Your task to perform on an android device: Open battery settings Image 0: 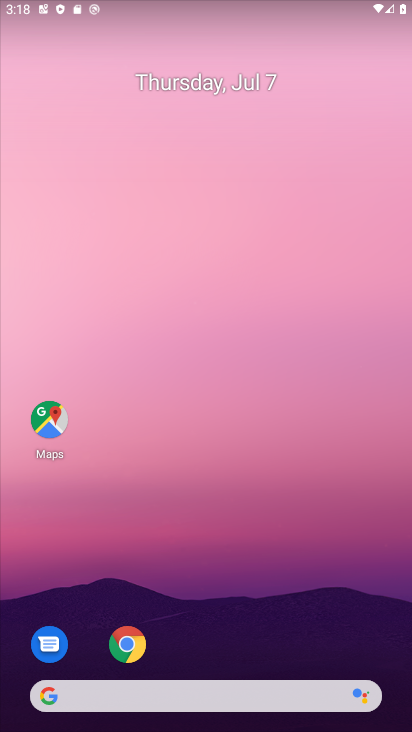
Step 0: drag from (201, 672) to (125, 71)
Your task to perform on an android device: Open battery settings Image 1: 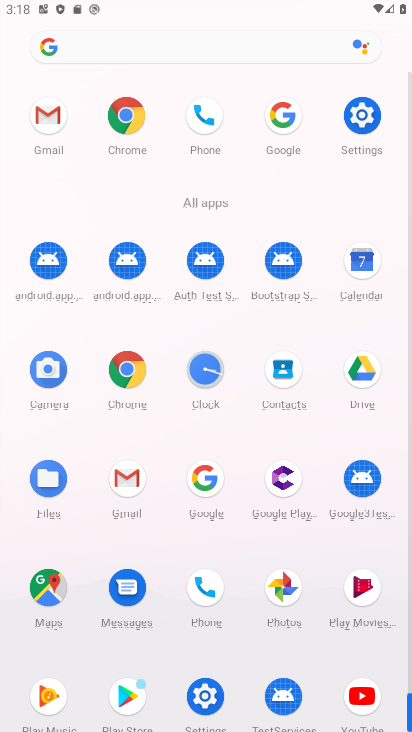
Step 1: click (374, 120)
Your task to perform on an android device: Open battery settings Image 2: 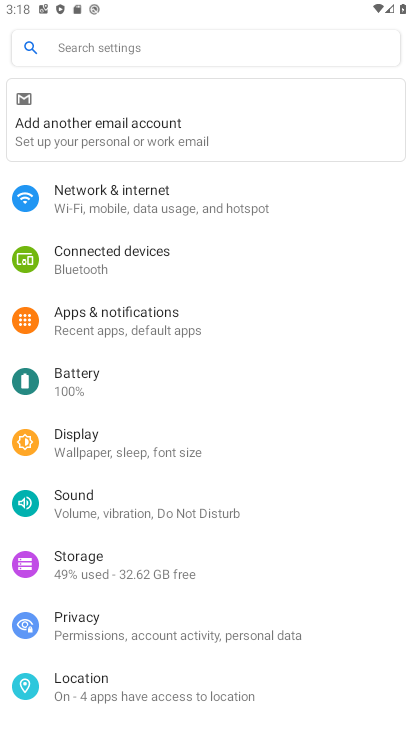
Step 2: click (45, 376)
Your task to perform on an android device: Open battery settings Image 3: 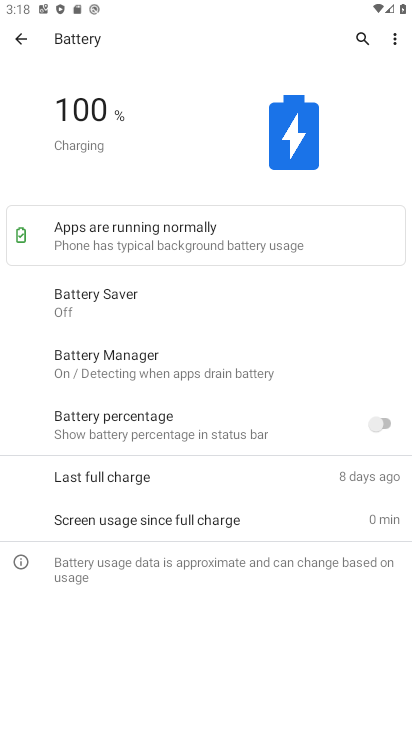
Step 3: task complete